Your task to perform on an android device: toggle location history Image 0: 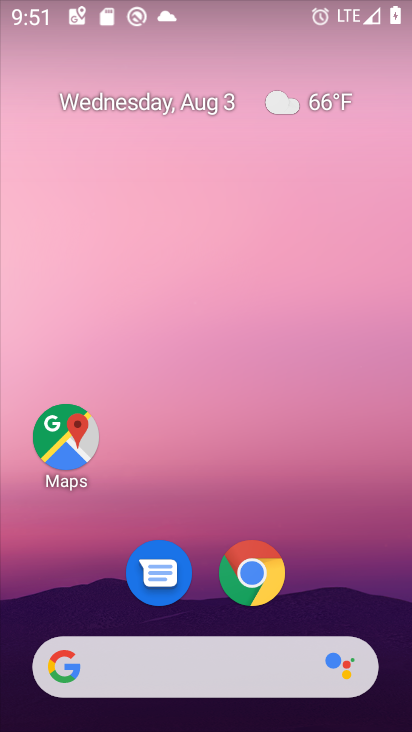
Step 0: click (60, 443)
Your task to perform on an android device: toggle location history Image 1: 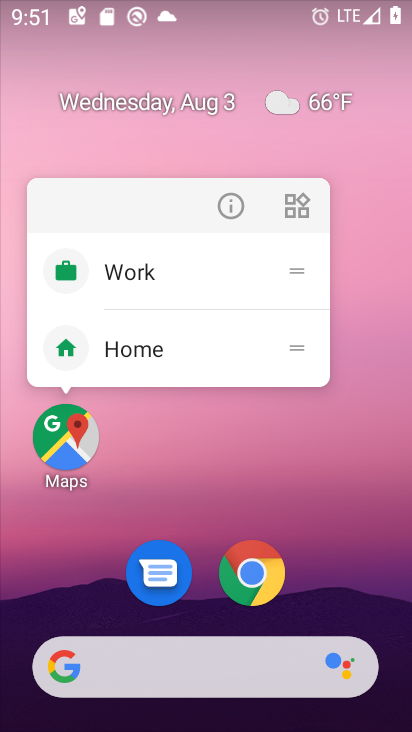
Step 1: click (62, 444)
Your task to perform on an android device: toggle location history Image 2: 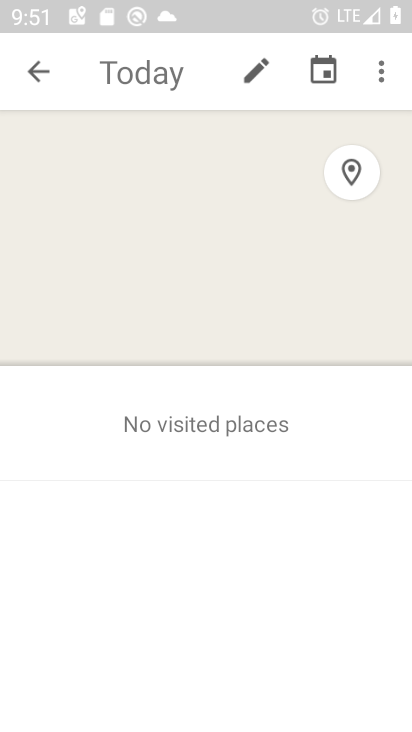
Step 2: click (381, 77)
Your task to perform on an android device: toggle location history Image 3: 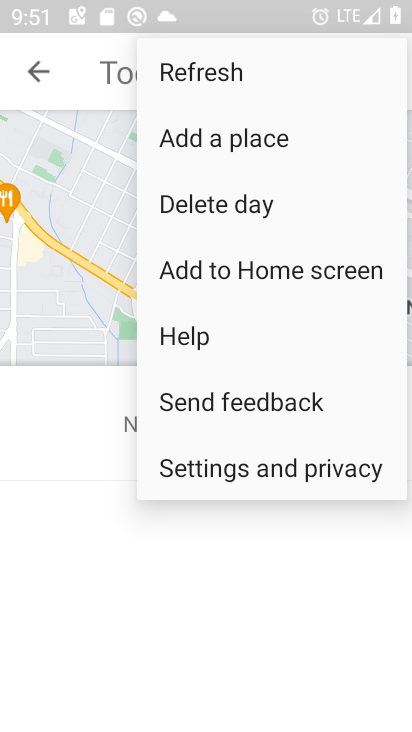
Step 3: click (236, 460)
Your task to perform on an android device: toggle location history Image 4: 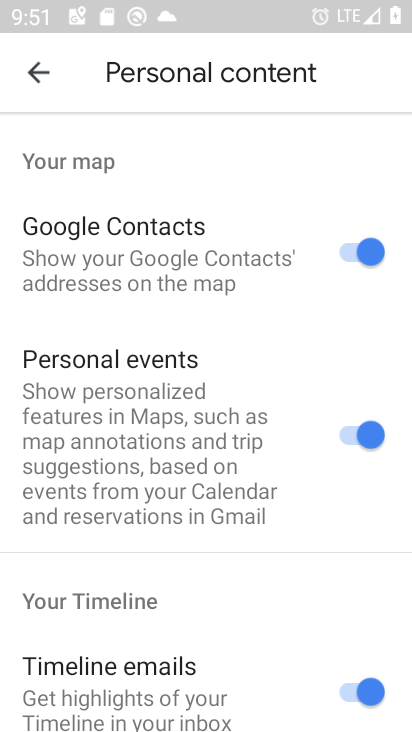
Step 4: drag from (157, 606) to (162, 75)
Your task to perform on an android device: toggle location history Image 5: 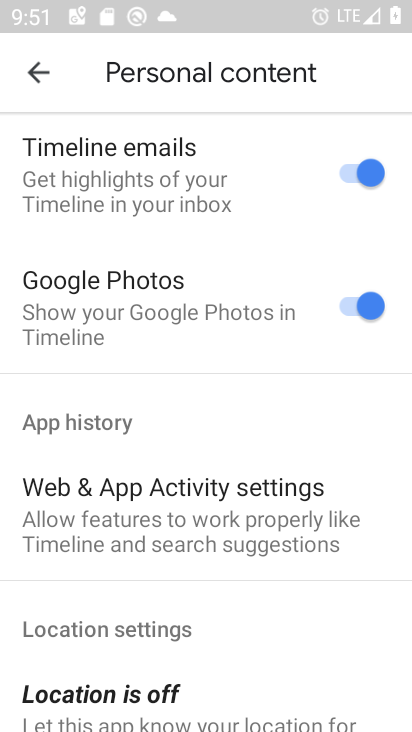
Step 5: drag from (127, 552) to (116, 180)
Your task to perform on an android device: toggle location history Image 6: 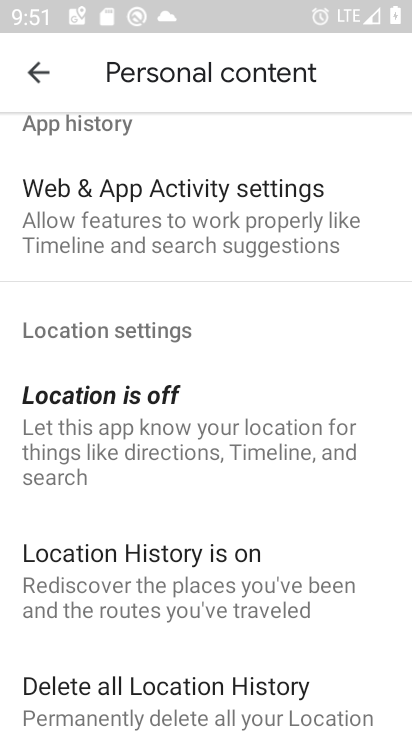
Step 6: click (136, 581)
Your task to perform on an android device: toggle location history Image 7: 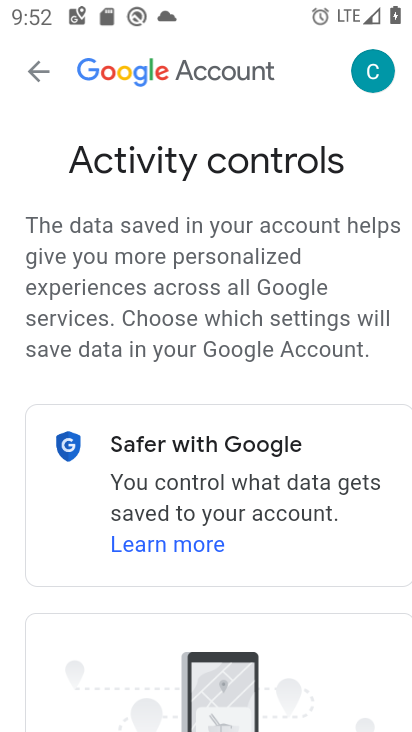
Step 7: drag from (243, 481) to (230, 112)
Your task to perform on an android device: toggle location history Image 8: 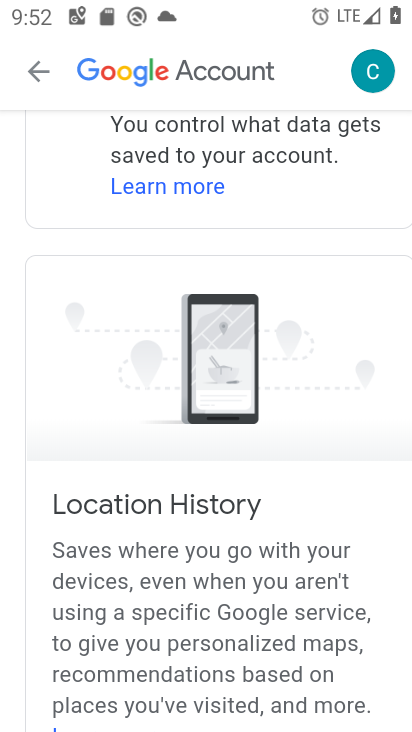
Step 8: drag from (249, 498) to (237, 67)
Your task to perform on an android device: toggle location history Image 9: 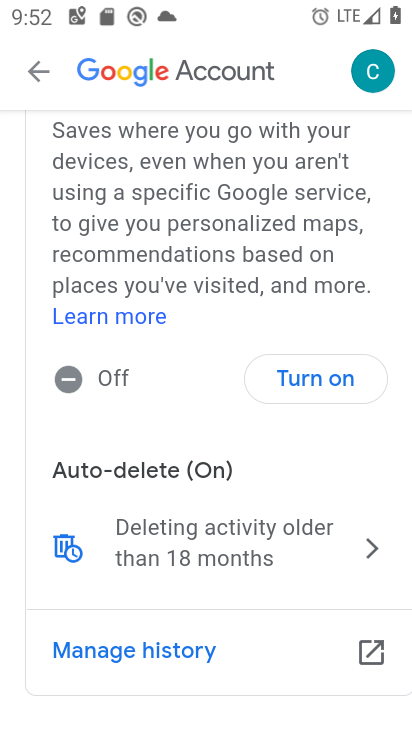
Step 9: click (315, 376)
Your task to perform on an android device: toggle location history Image 10: 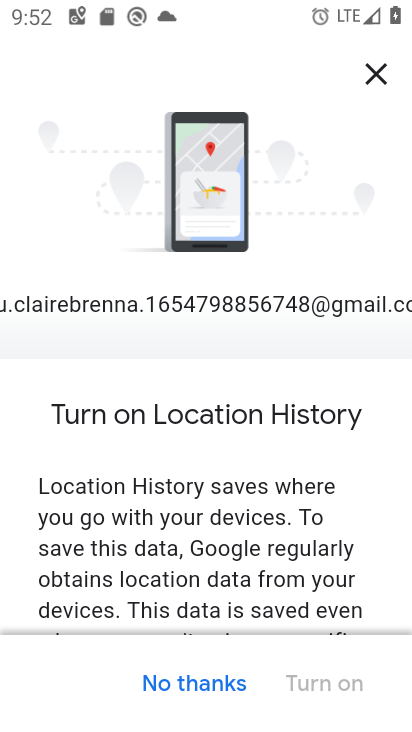
Step 10: drag from (231, 524) to (211, 3)
Your task to perform on an android device: toggle location history Image 11: 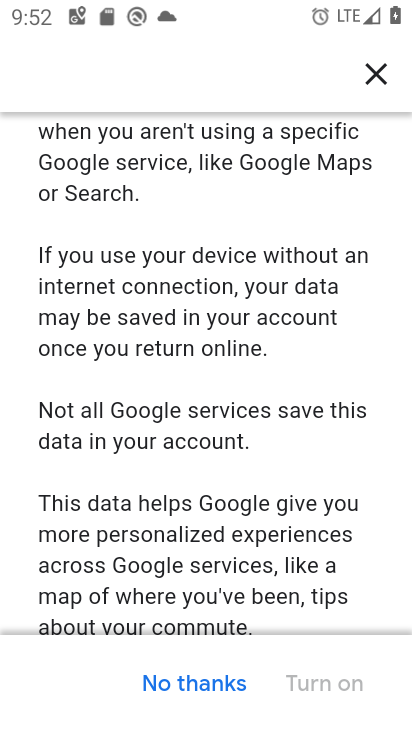
Step 11: drag from (248, 501) to (265, 27)
Your task to perform on an android device: toggle location history Image 12: 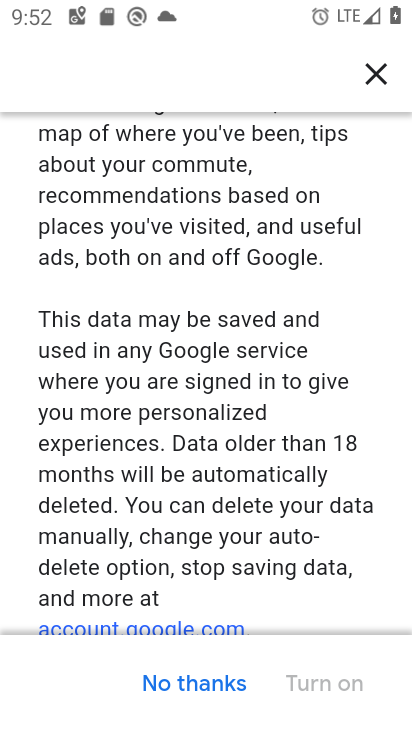
Step 12: drag from (263, 550) to (265, 19)
Your task to perform on an android device: toggle location history Image 13: 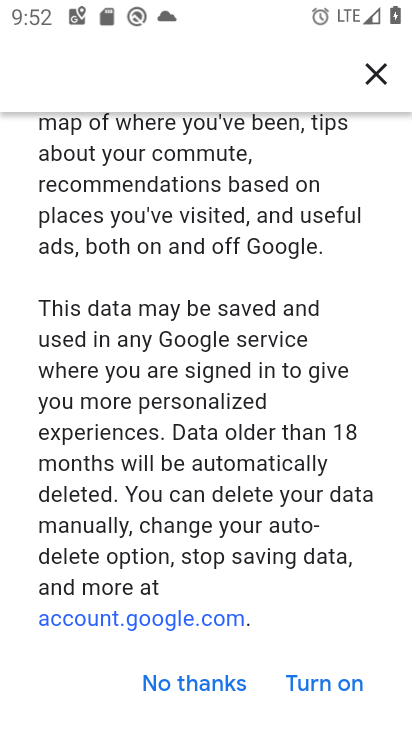
Step 13: click (305, 685)
Your task to perform on an android device: toggle location history Image 14: 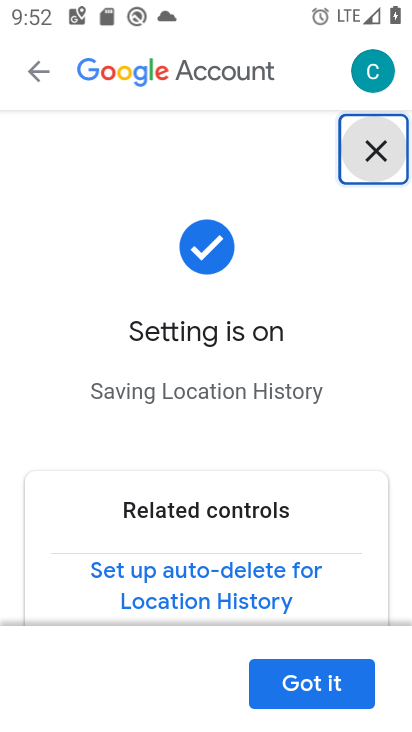
Step 14: click (293, 686)
Your task to perform on an android device: toggle location history Image 15: 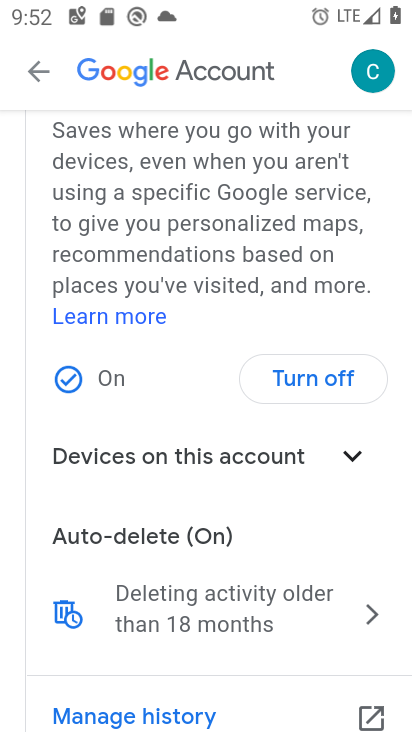
Step 15: task complete